Your task to perform on an android device: Open settings Image 0: 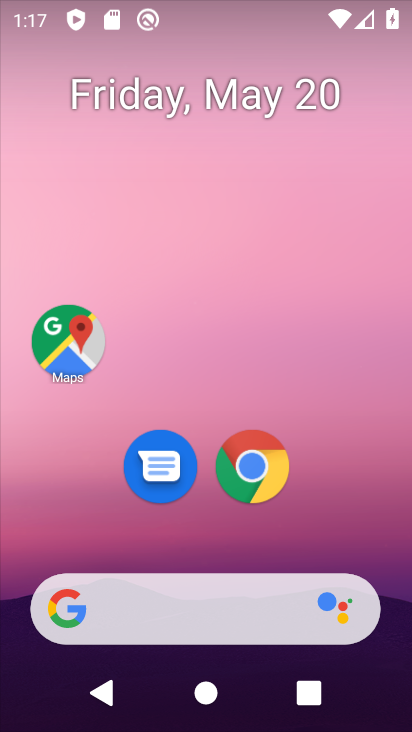
Step 0: drag from (205, 558) to (205, 203)
Your task to perform on an android device: Open settings Image 1: 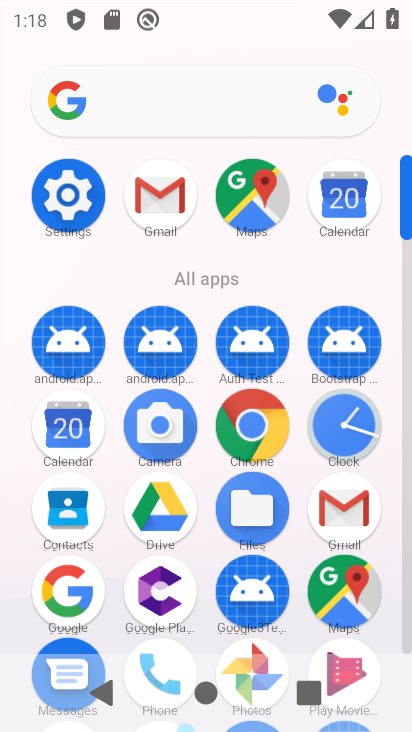
Step 1: click (47, 163)
Your task to perform on an android device: Open settings Image 2: 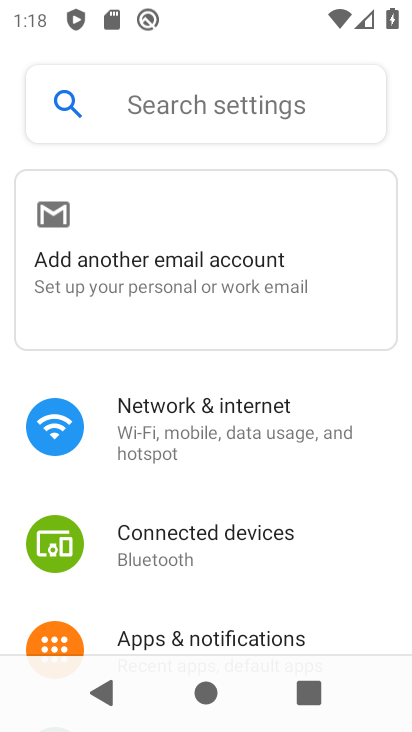
Step 2: task complete